Your task to perform on an android device: change alarm snooze length Image 0: 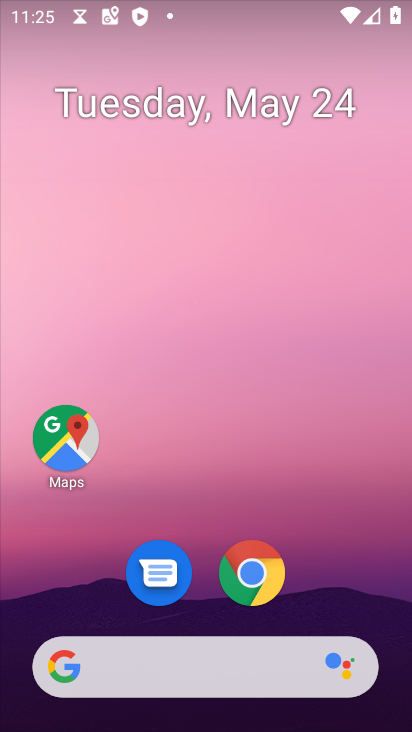
Step 0: drag from (108, 641) to (274, 155)
Your task to perform on an android device: change alarm snooze length Image 1: 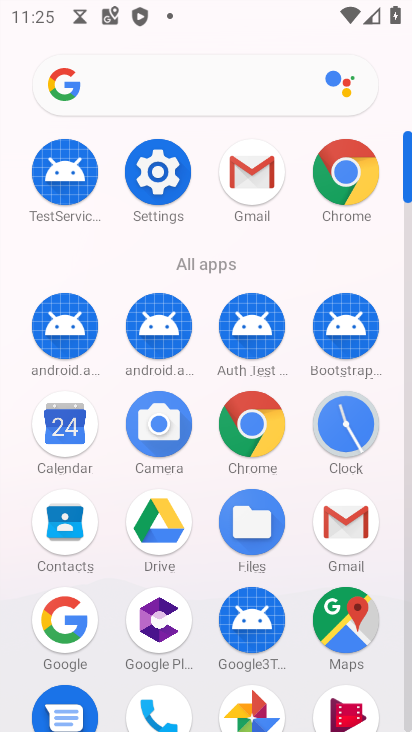
Step 1: click (347, 433)
Your task to perform on an android device: change alarm snooze length Image 2: 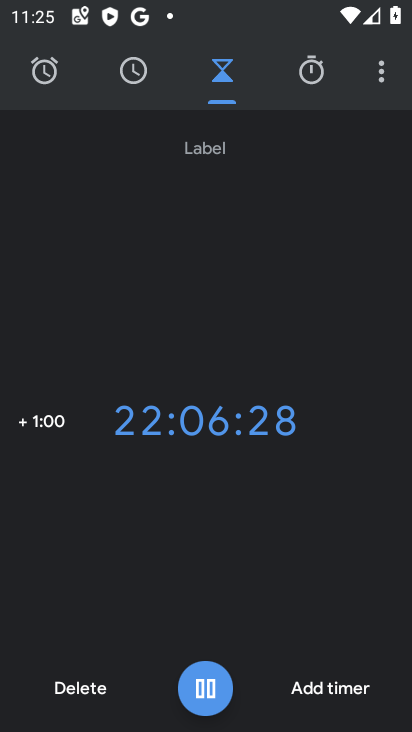
Step 2: click (373, 82)
Your task to perform on an android device: change alarm snooze length Image 3: 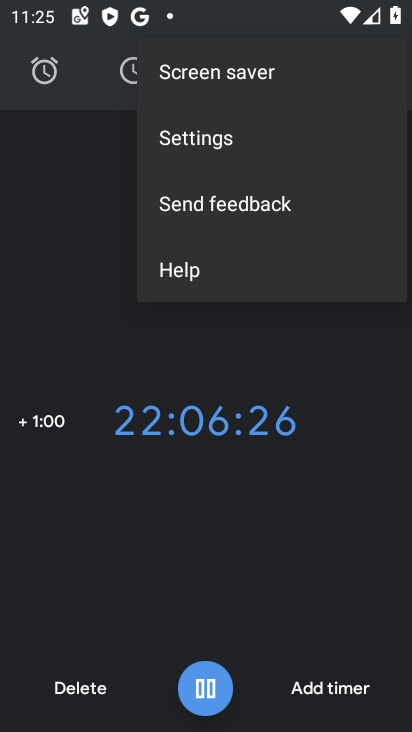
Step 3: click (286, 143)
Your task to perform on an android device: change alarm snooze length Image 4: 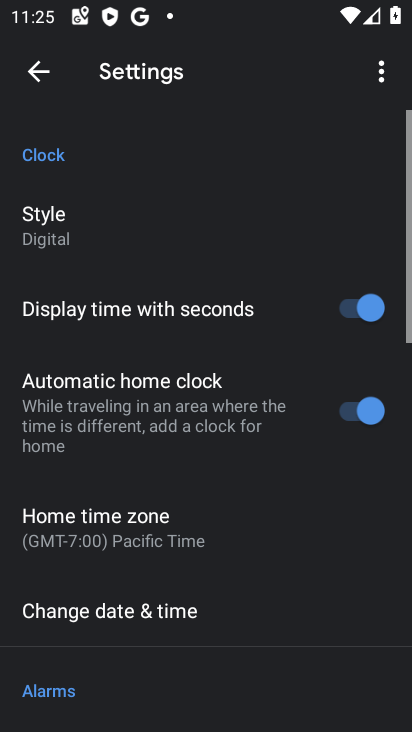
Step 4: drag from (239, 593) to (294, 278)
Your task to perform on an android device: change alarm snooze length Image 5: 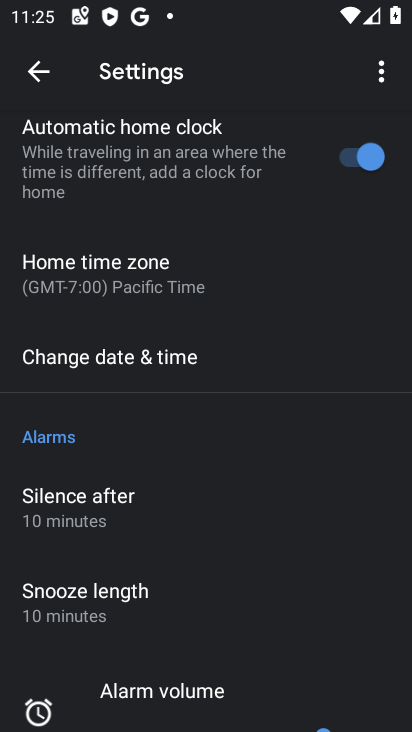
Step 5: drag from (215, 597) to (325, 117)
Your task to perform on an android device: change alarm snooze length Image 6: 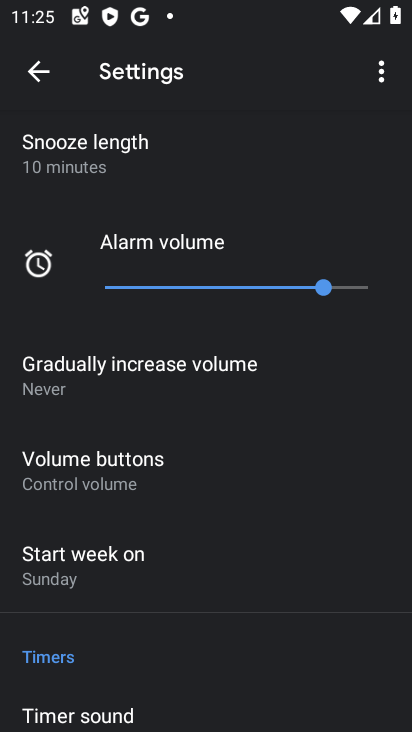
Step 6: drag from (170, 663) to (228, 728)
Your task to perform on an android device: change alarm snooze length Image 7: 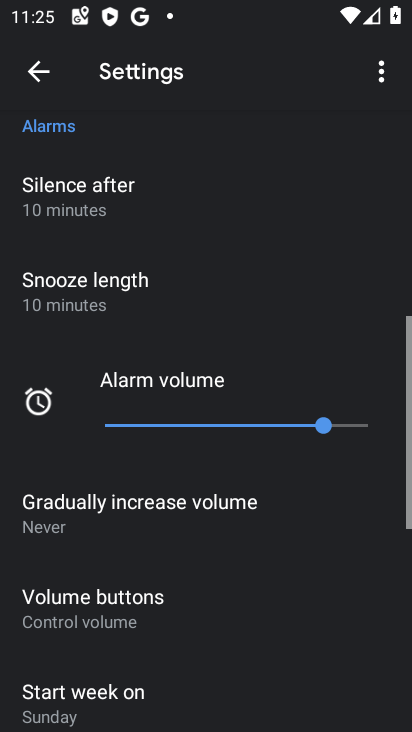
Step 7: click (210, 283)
Your task to perform on an android device: change alarm snooze length Image 8: 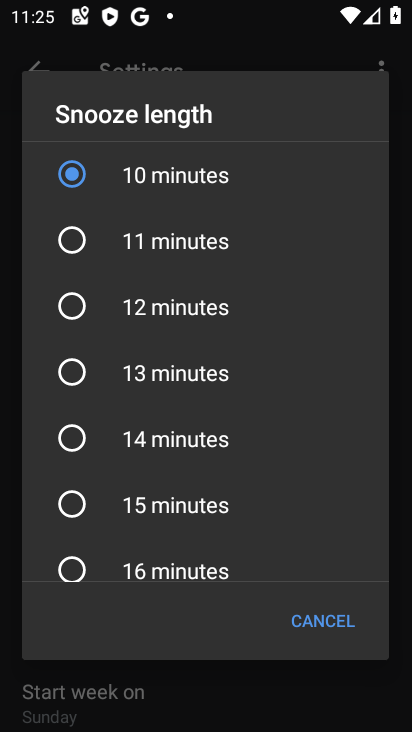
Step 8: click (206, 504)
Your task to perform on an android device: change alarm snooze length Image 9: 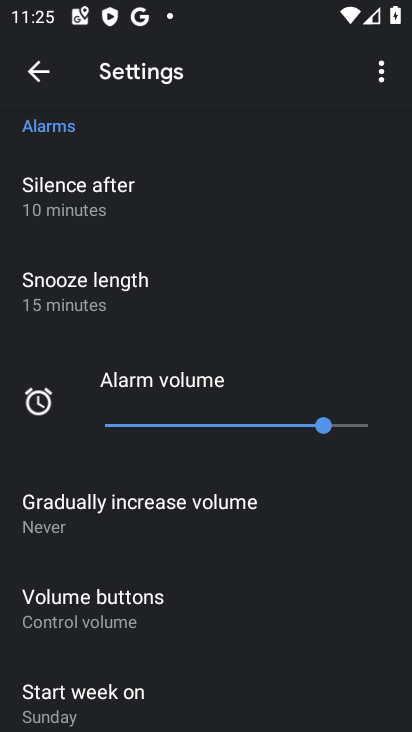
Step 9: task complete